Your task to perform on an android device: read, delete, or share a saved page in the chrome app Image 0: 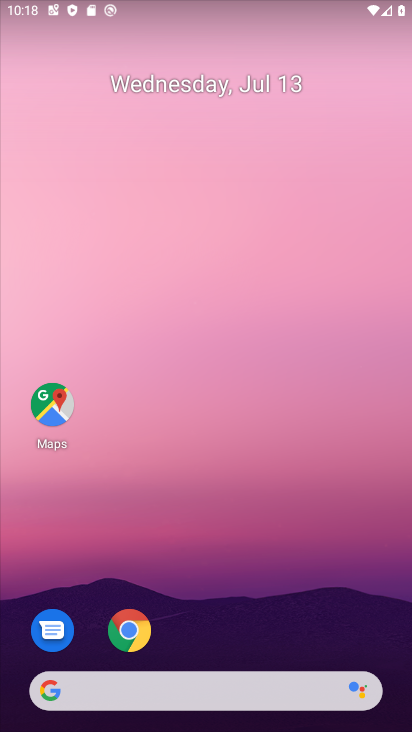
Step 0: drag from (261, 602) to (171, 161)
Your task to perform on an android device: read, delete, or share a saved page in the chrome app Image 1: 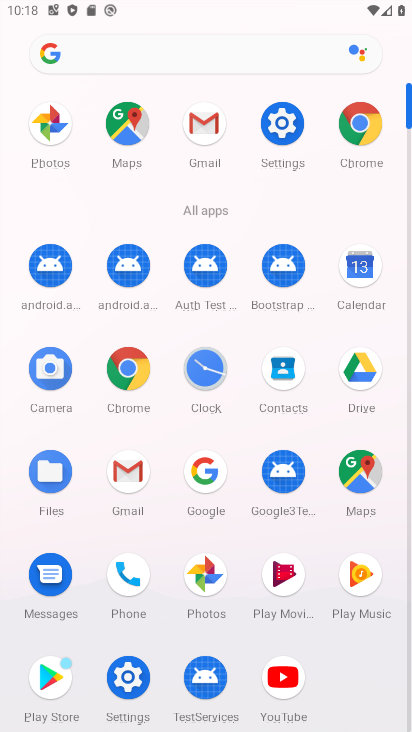
Step 1: click (358, 136)
Your task to perform on an android device: read, delete, or share a saved page in the chrome app Image 2: 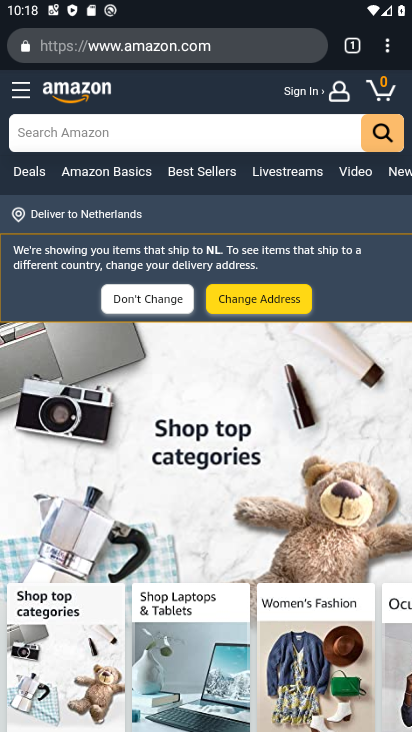
Step 2: drag from (396, 41) to (241, 309)
Your task to perform on an android device: read, delete, or share a saved page in the chrome app Image 3: 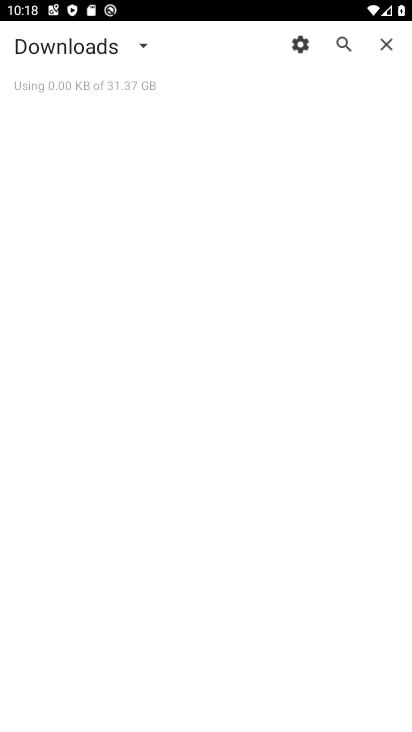
Step 3: click (144, 45)
Your task to perform on an android device: read, delete, or share a saved page in the chrome app Image 4: 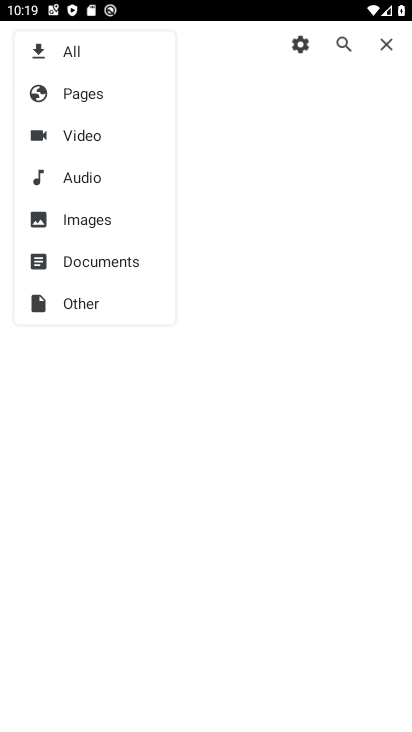
Step 4: click (71, 99)
Your task to perform on an android device: read, delete, or share a saved page in the chrome app Image 5: 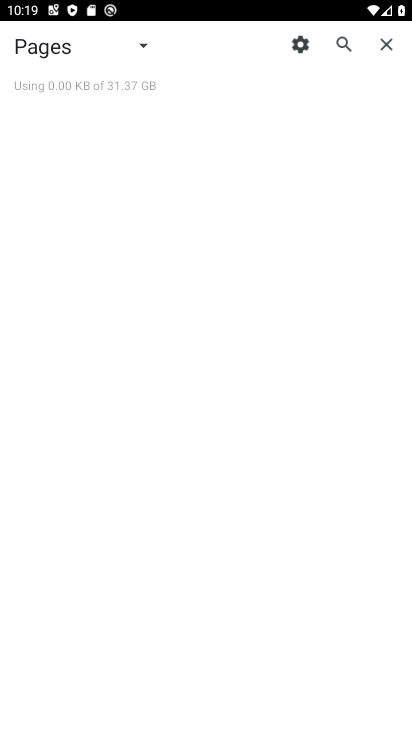
Step 5: task complete